Your task to perform on an android device: toggle show notifications on the lock screen Image 0: 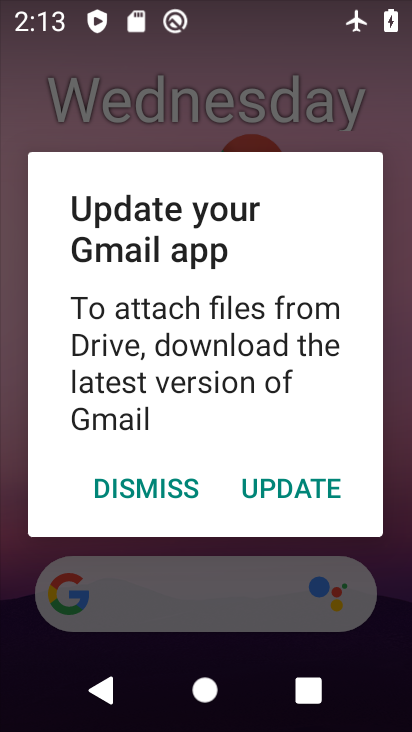
Step 0: press home button
Your task to perform on an android device: toggle show notifications on the lock screen Image 1: 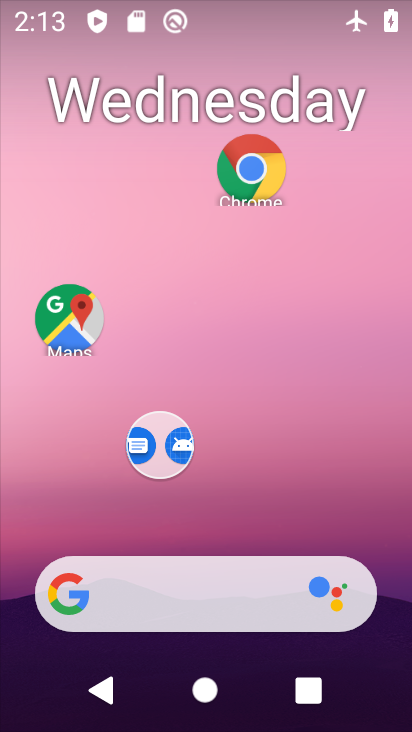
Step 1: drag from (207, 539) to (211, 11)
Your task to perform on an android device: toggle show notifications on the lock screen Image 2: 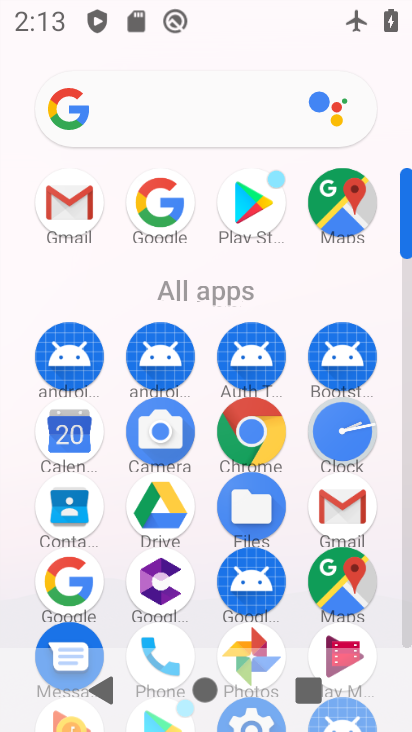
Step 2: drag from (197, 549) to (181, 225)
Your task to perform on an android device: toggle show notifications on the lock screen Image 3: 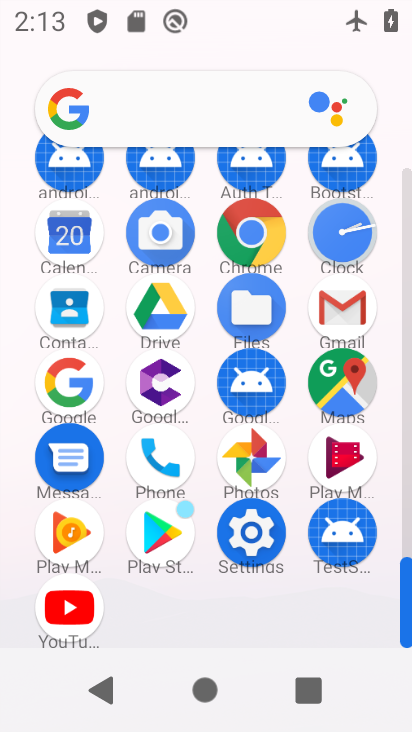
Step 3: click (262, 551)
Your task to perform on an android device: toggle show notifications on the lock screen Image 4: 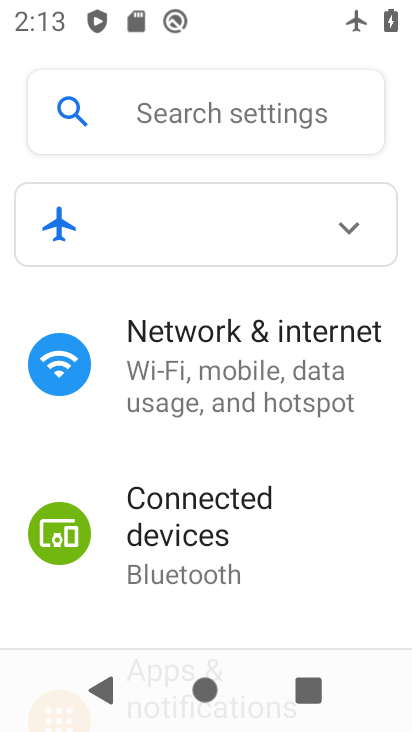
Step 4: drag from (257, 564) to (240, 207)
Your task to perform on an android device: toggle show notifications on the lock screen Image 5: 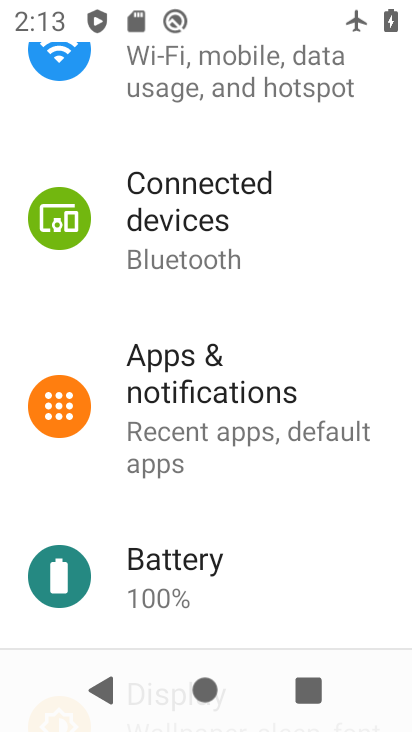
Step 5: click (218, 375)
Your task to perform on an android device: toggle show notifications on the lock screen Image 6: 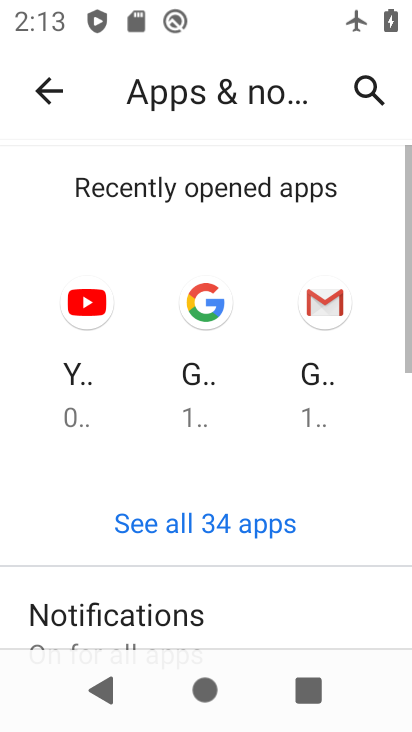
Step 6: click (164, 629)
Your task to perform on an android device: toggle show notifications on the lock screen Image 7: 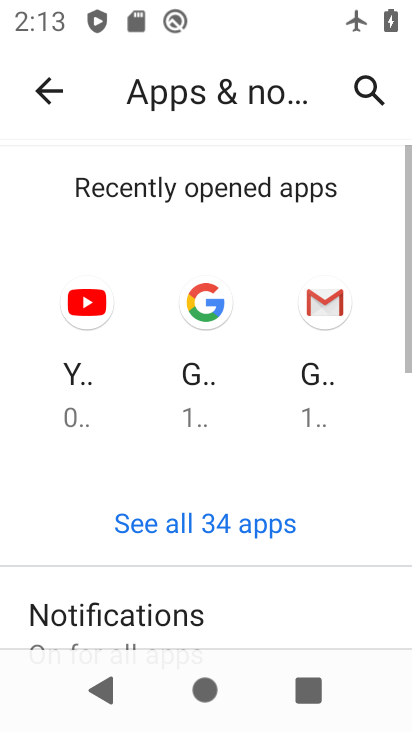
Step 7: drag from (162, 630) to (154, 245)
Your task to perform on an android device: toggle show notifications on the lock screen Image 8: 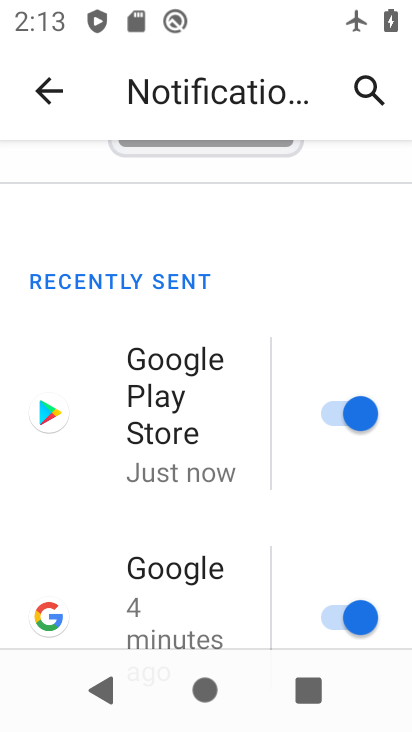
Step 8: drag from (172, 567) to (177, 128)
Your task to perform on an android device: toggle show notifications on the lock screen Image 9: 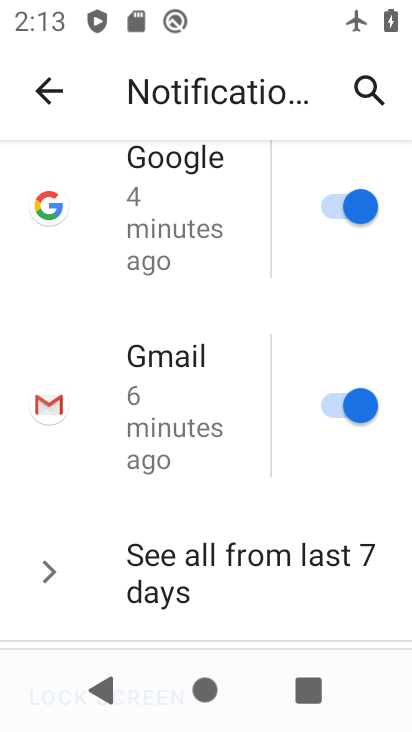
Step 9: drag from (235, 554) to (235, 156)
Your task to perform on an android device: toggle show notifications on the lock screen Image 10: 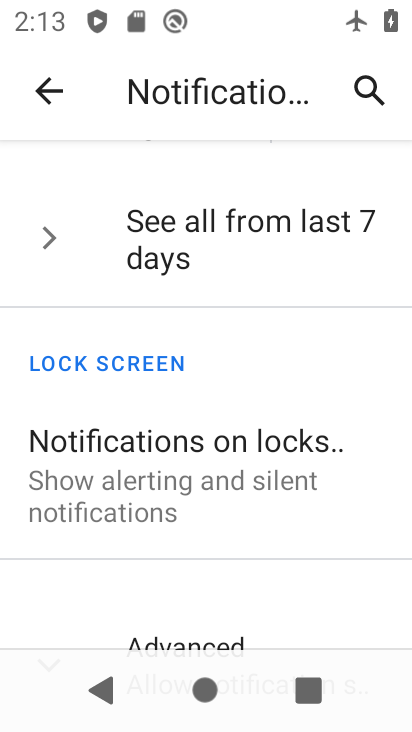
Step 10: click (253, 460)
Your task to perform on an android device: toggle show notifications on the lock screen Image 11: 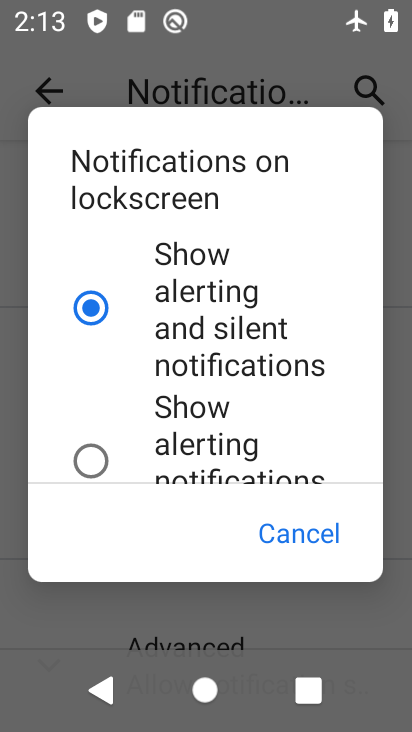
Step 11: click (251, 427)
Your task to perform on an android device: toggle show notifications on the lock screen Image 12: 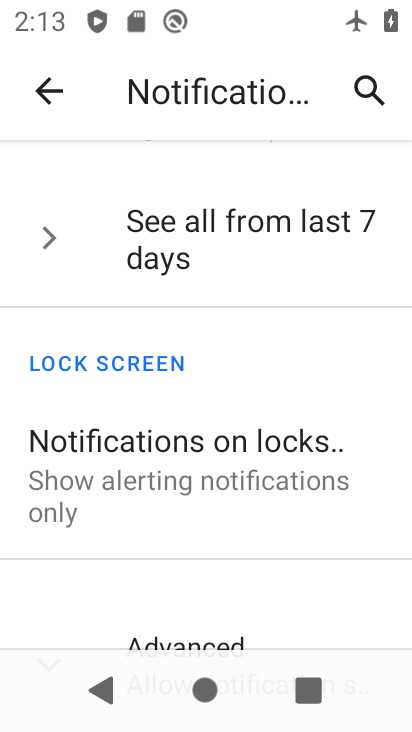
Step 12: task complete